Your task to perform on an android device: open the mobile data screen to see how much data has been used Image 0: 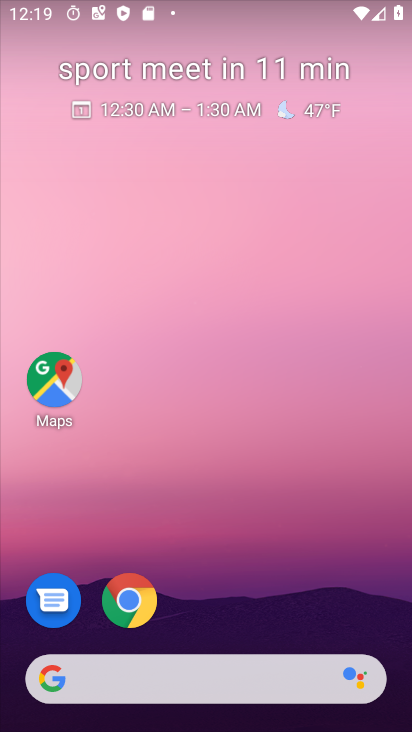
Step 0: drag from (196, 537) to (266, 150)
Your task to perform on an android device: open the mobile data screen to see how much data has been used Image 1: 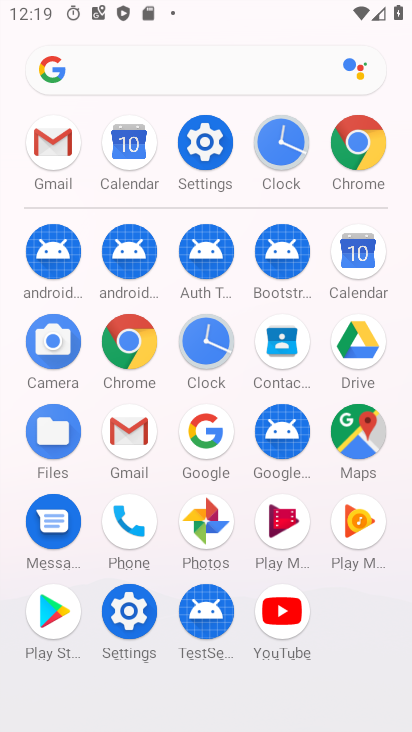
Step 1: click (204, 149)
Your task to perform on an android device: open the mobile data screen to see how much data has been used Image 2: 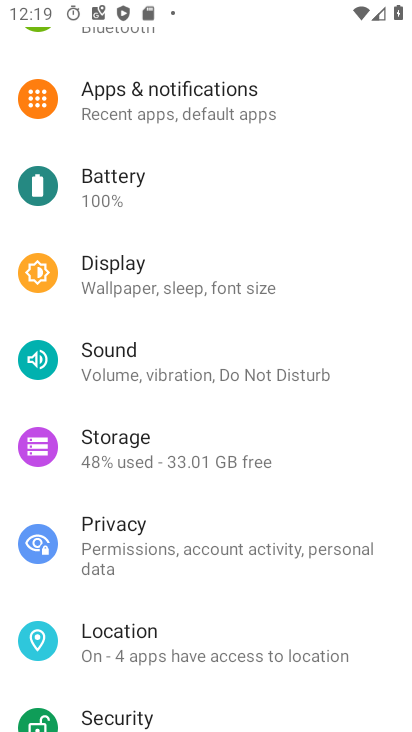
Step 2: drag from (204, 155) to (215, 693)
Your task to perform on an android device: open the mobile data screen to see how much data has been used Image 3: 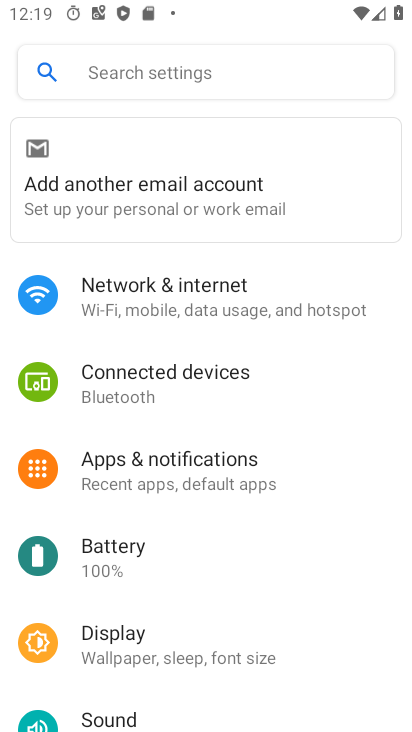
Step 3: click (215, 291)
Your task to perform on an android device: open the mobile data screen to see how much data has been used Image 4: 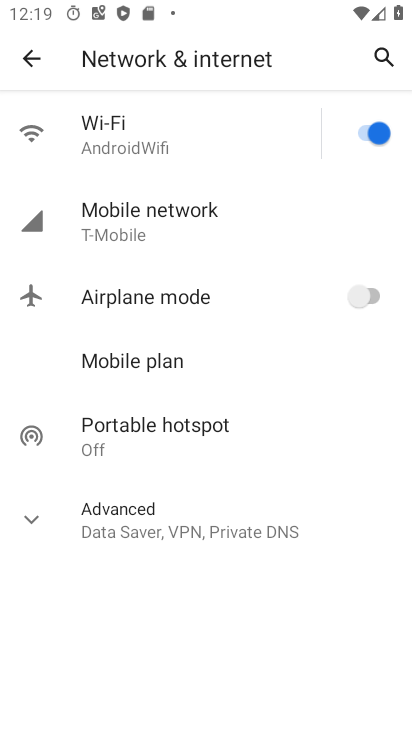
Step 4: click (229, 210)
Your task to perform on an android device: open the mobile data screen to see how much data has been used Image 5: 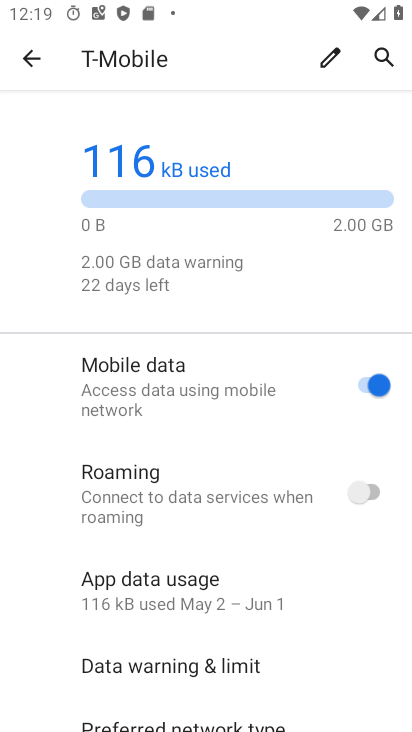
Step 5: task complete